Your task to perform on an android device: Search for a nice rug on Crate & Barrel Image 0: 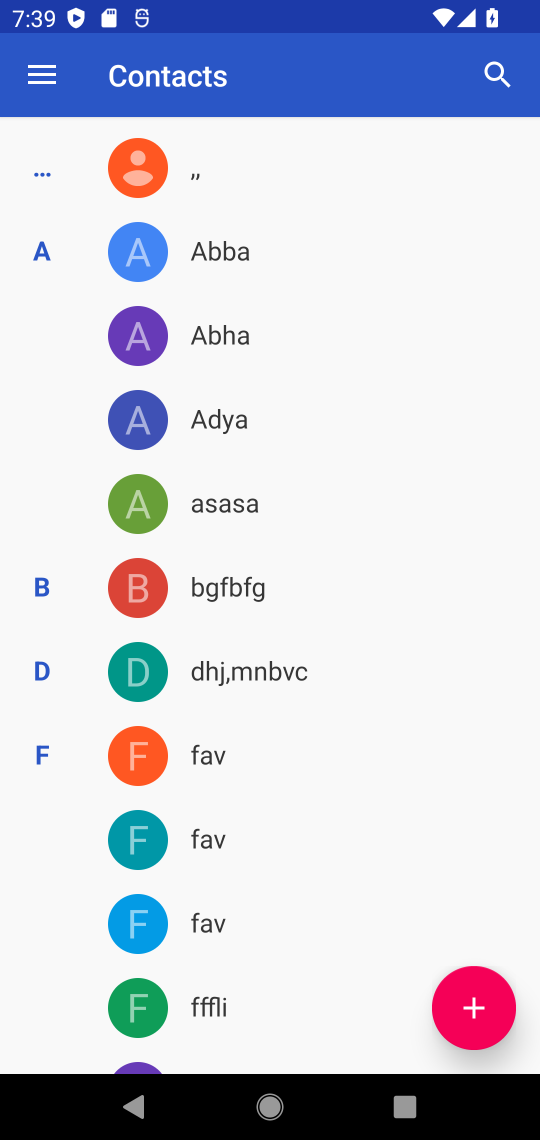
Step 0: press home button
Your task to perform on an android device: Search for a nice rug on Crate & Barrel Image 1: 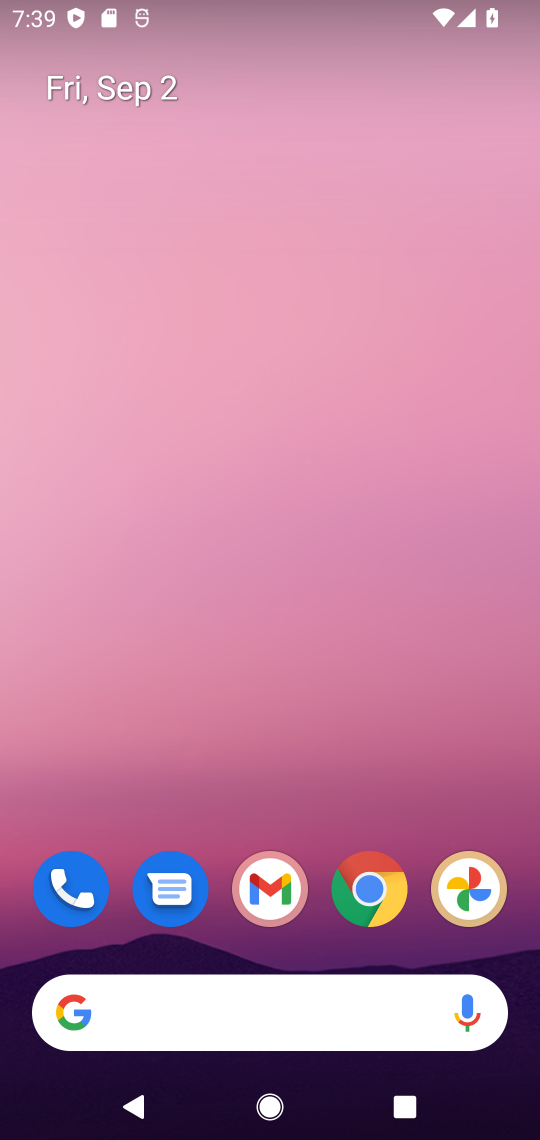
Step 1: click (225, 990)
Your task to perform on an android device: Search for a nice rug on Crate & Barrel Image 2: 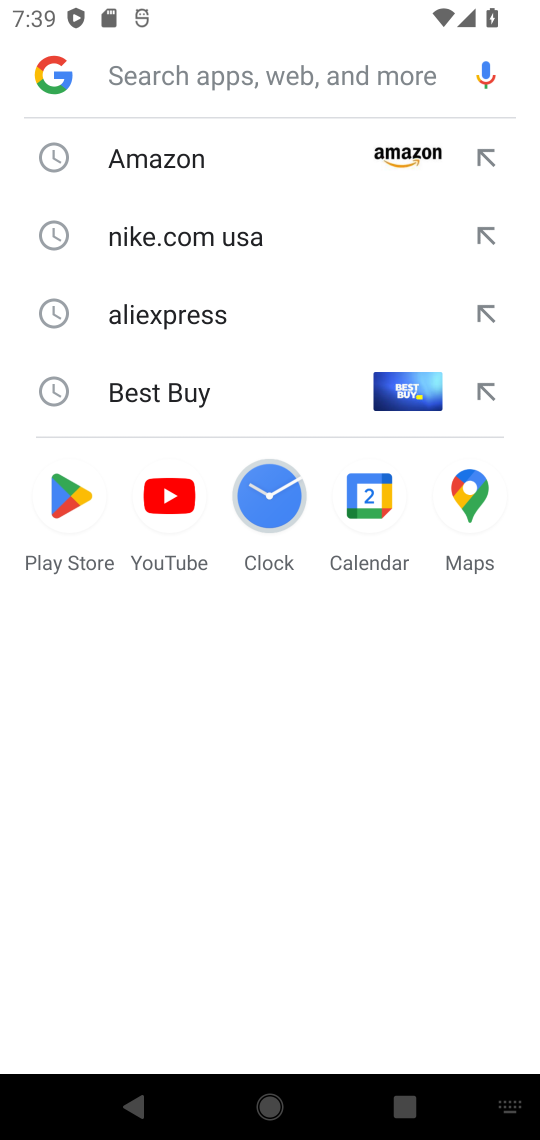
Step 2: type "Crate & Barrel"
Your task to perform on an android device: Search for a nice rug on Crate & Barrel Image 3: 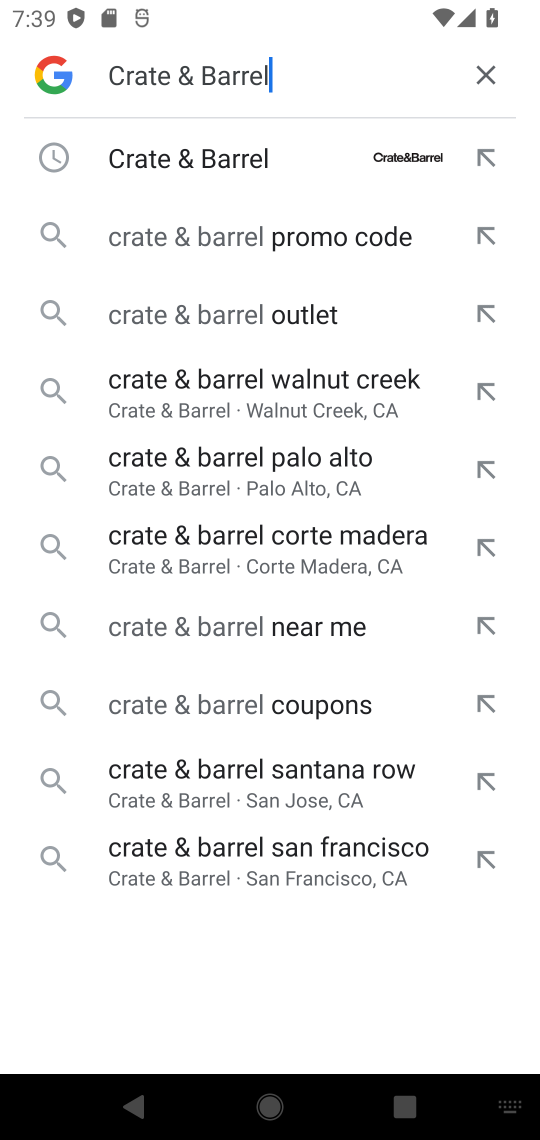
Step 3: click (219, 149)
Your task to perform on an android device: Search for a nice rug on Crate & Barrel Image 4: 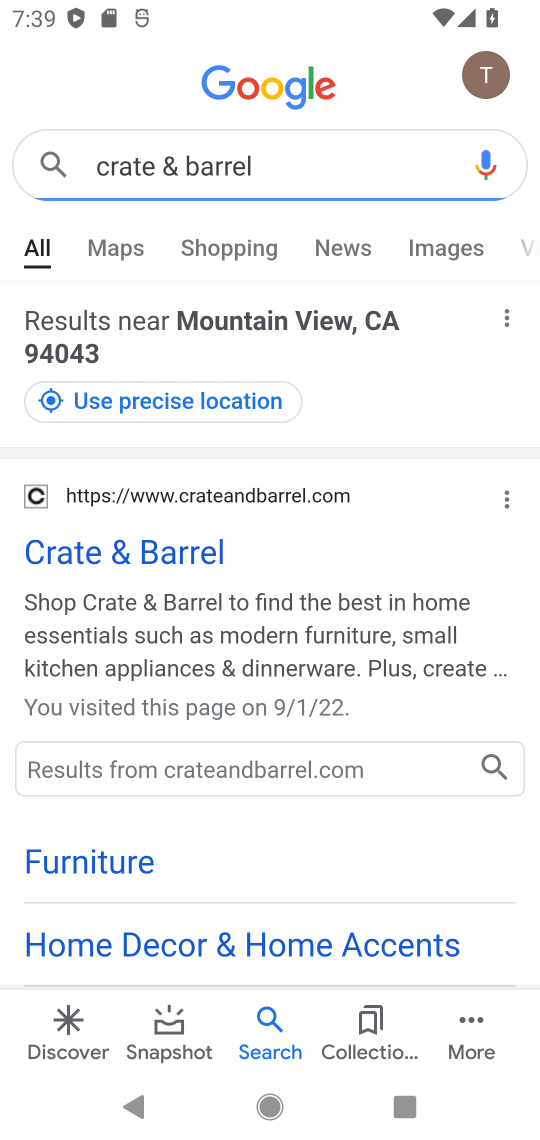
Step 4: click (194, 557)
Your task to perform on an android device: Search for a nice rug on Crate & Barrel Image 5: 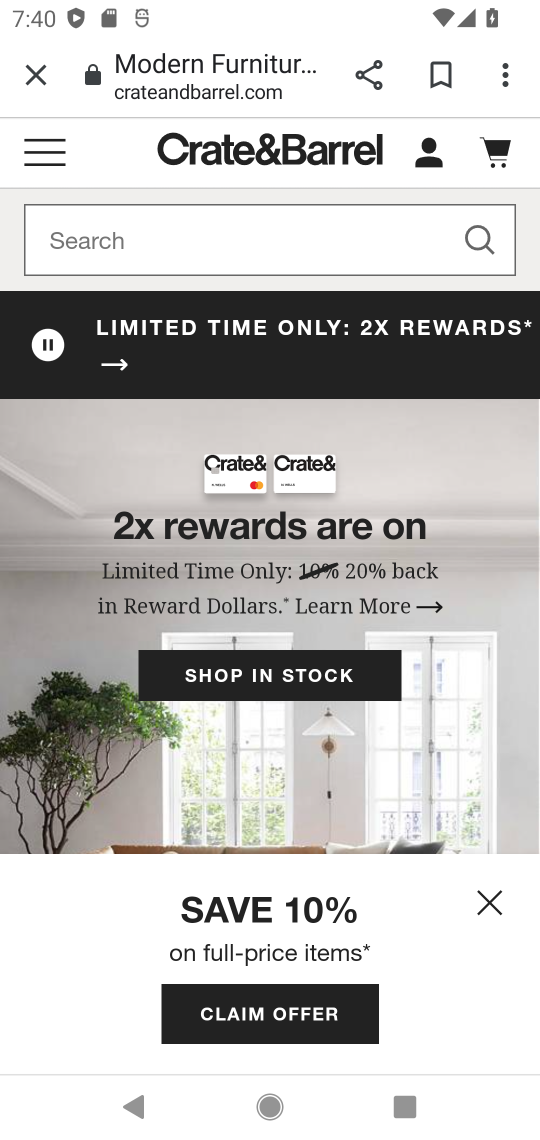
Step 5: click (281, 226)
Your task to perform on an android device: Search for a nice rug on Crate & Barrel Image 6: 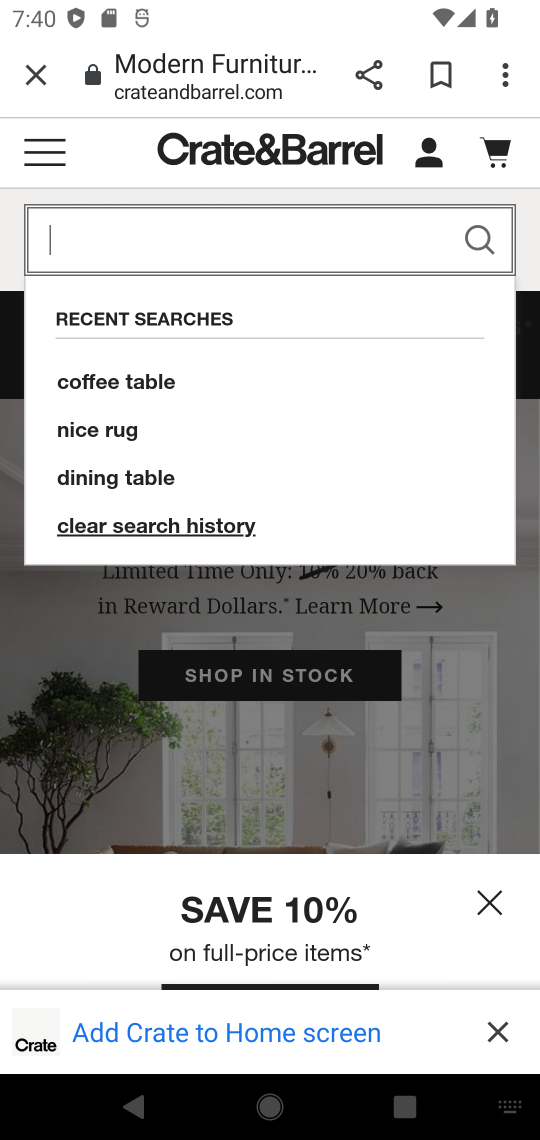
Step 6: type "nice rug"
Your task to perform on an android device: Search for a nice rug on Crate & Barrel Image 7: 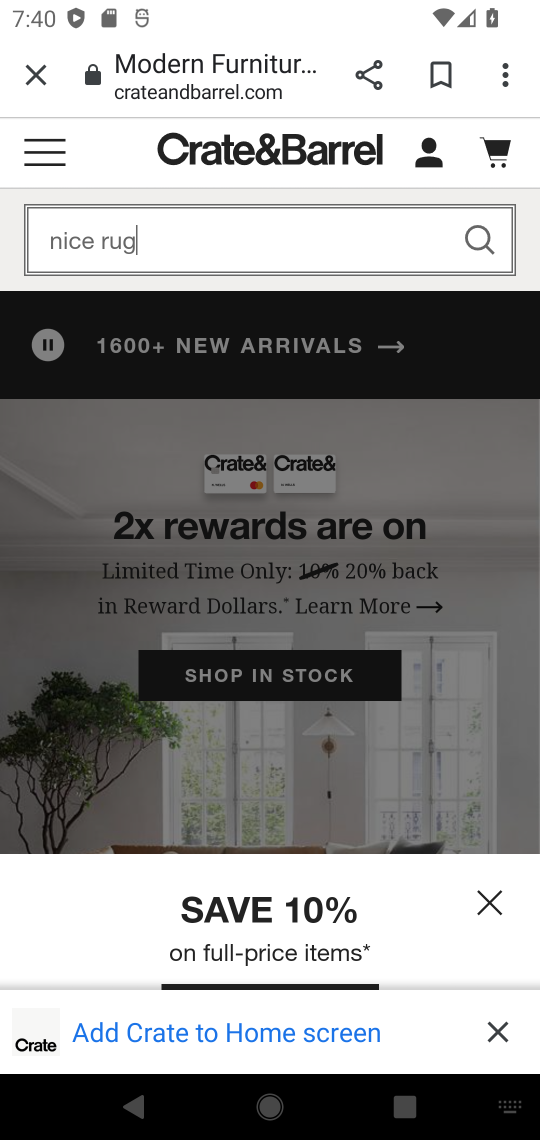
Step 7: click (485, 247)
Your task to perform on an android device: Search for a nice rug on Crate & Barrel Image 8: 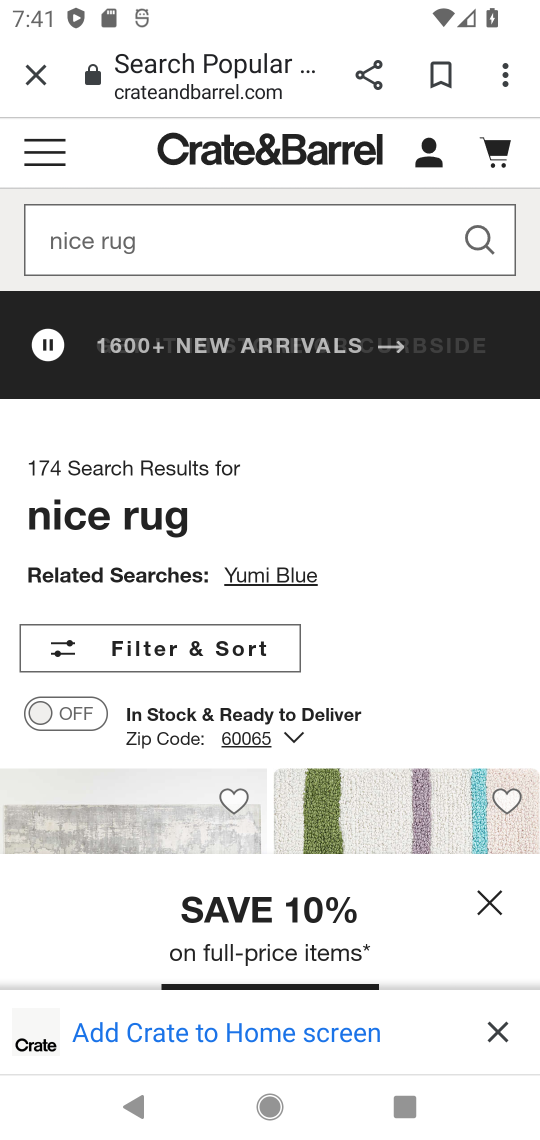
Step 8: task complete